Your task to perform on an android device: Search for pizza restaurants on Maps Image 0: 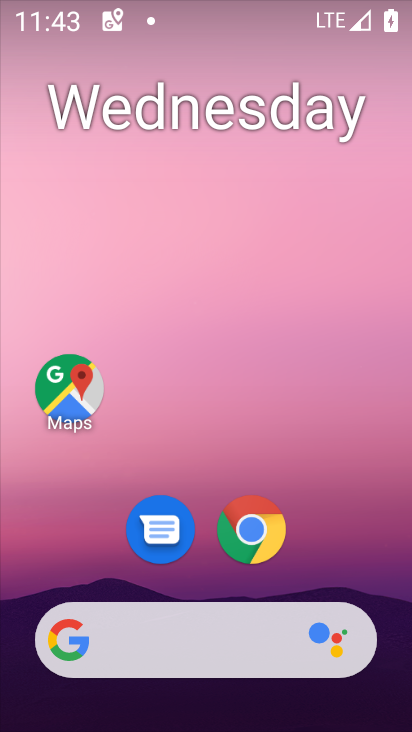
Step 0: click (68, 391)
Your task to perform on an android device: Search for pizza restaurants on Maps Image 1: 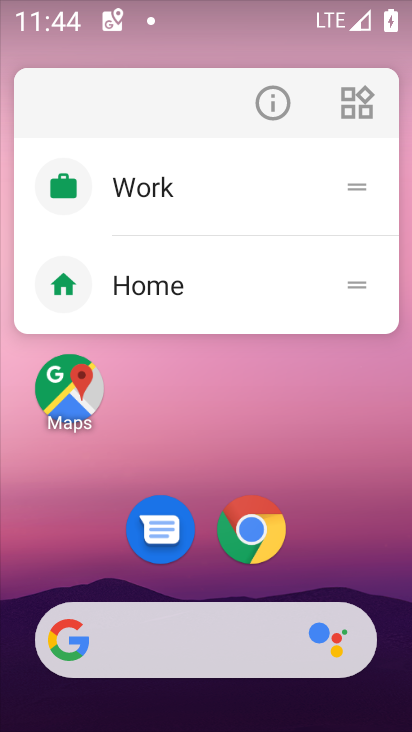
Step 1: click (68, 388)
Your task to perform on an android device: Search for pizza restaurants on Maps Image 2: 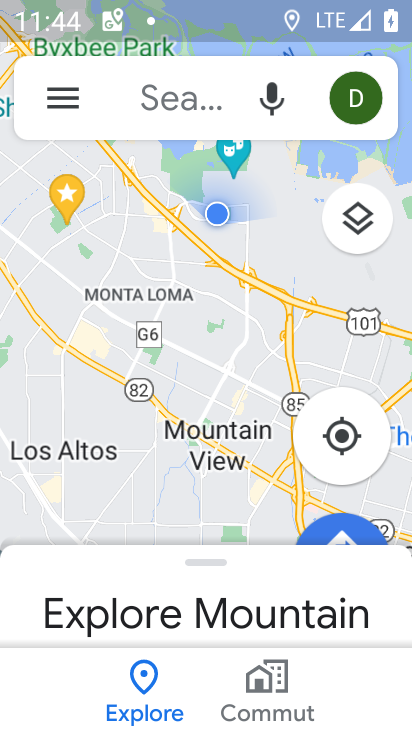
Step 2: click (176, 102)
Your task to perform on an android device: Search for pizza restaurants on Maps Image 3: 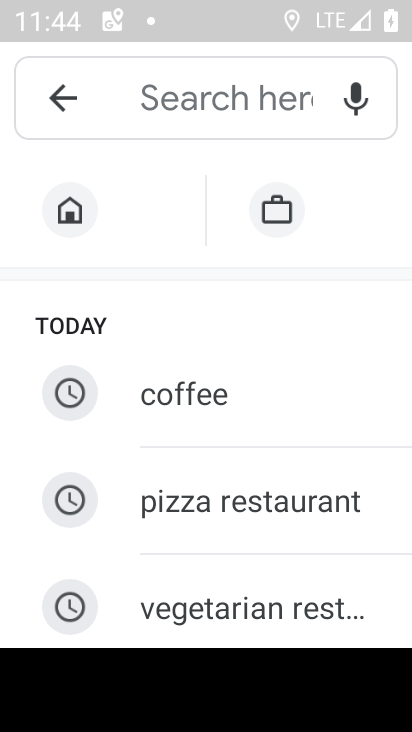
Step 3: type "pizza restaurants"
Your task to perform on an android device: Search for pizza restaurants on Maps Image 4: 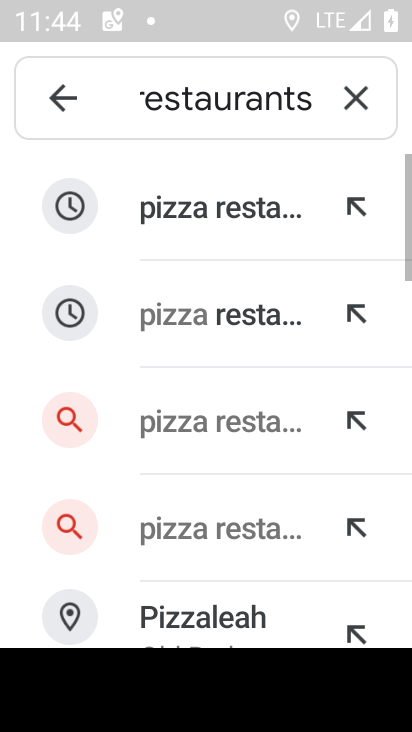
Step 4: click (183, 217)
Your task to perform on an android device: Search for pizza restaurants on Maps Image 5: 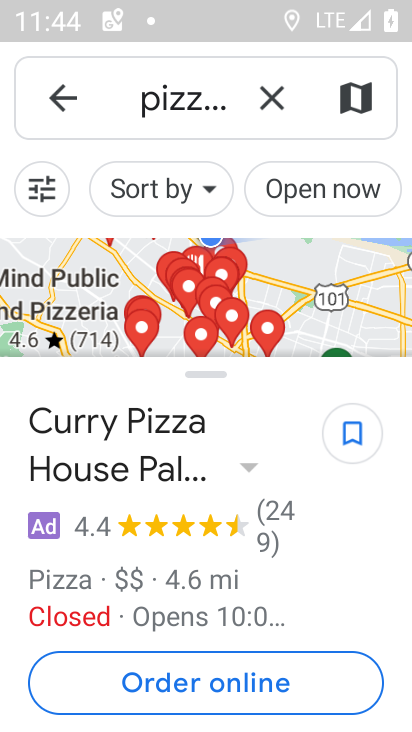
Step 5: task complete